Your task to perform on an android device: open sync settings in chrome Image 0: 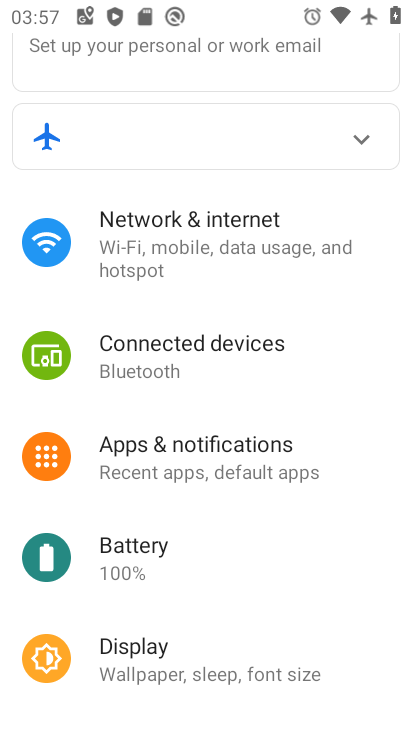
Step 0: press home button
Your task to perform on an android device: open sync settings in chrome Image 1: 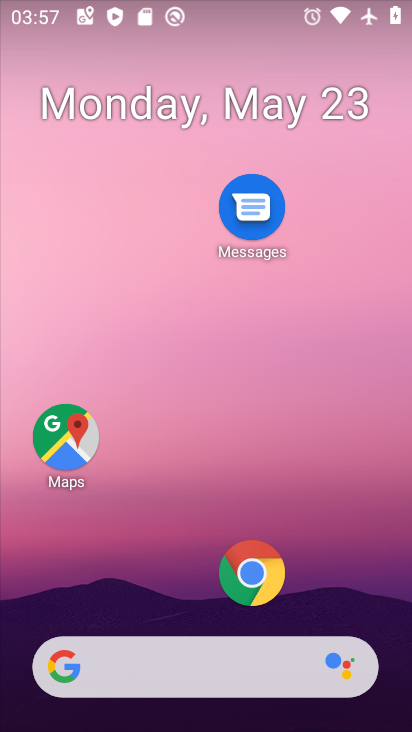
Step 1: drag from (315, 721) to (408, 27)
Your task to perform on an android device: open sync settings in chrome Image 2: 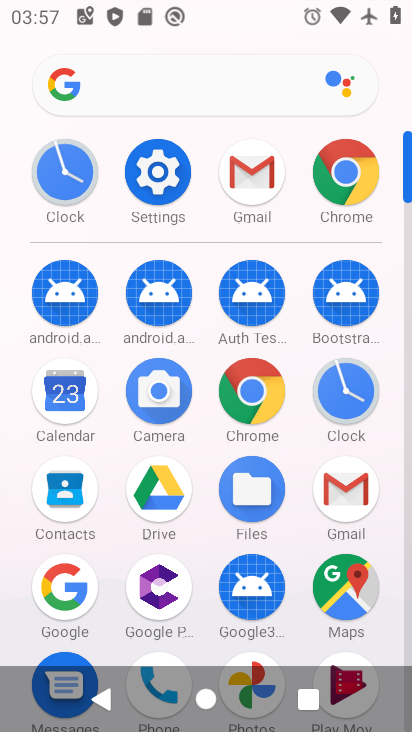
Step 2: click (273, 389)
Your task to perform on an android device: open sync settings in chrome Image 3: 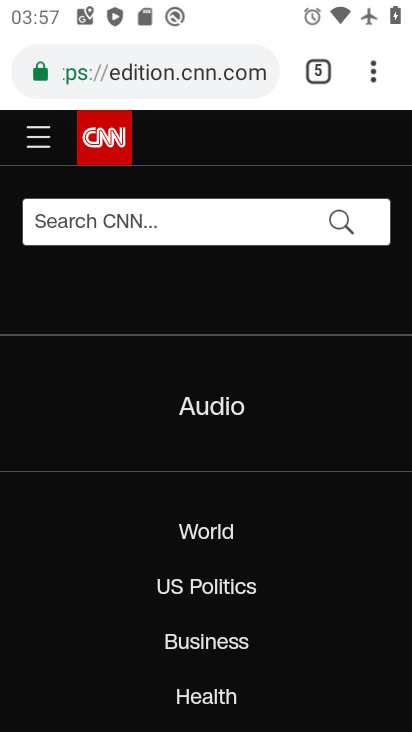
Step 3: click (372, 69)
Your task to perform on an android device: open sync settings in chrome Image 4: 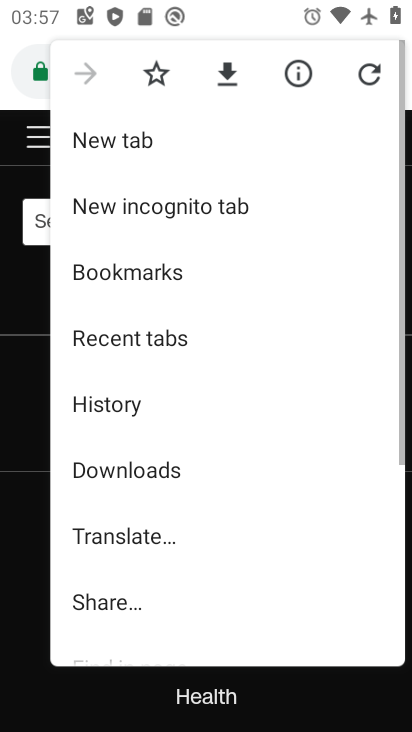
Step 4: drag from (283, 537) to (346, 102)
Your task to perform on an android device: open sync settings in chrome Image 5: 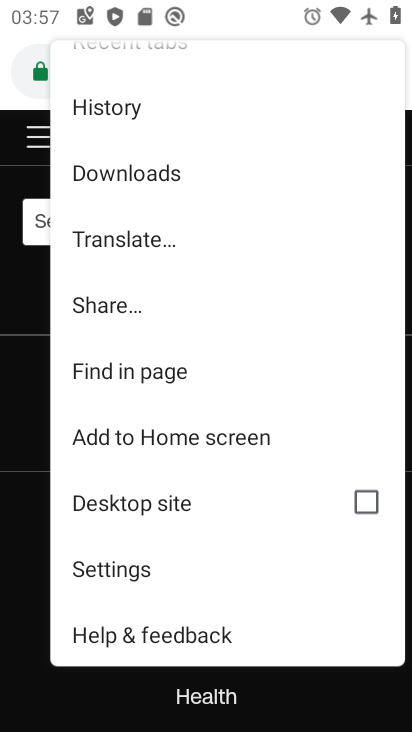
Step 5: click (164, 564)
Your task to perform on an android device: open sync settings in chrome Image 6: 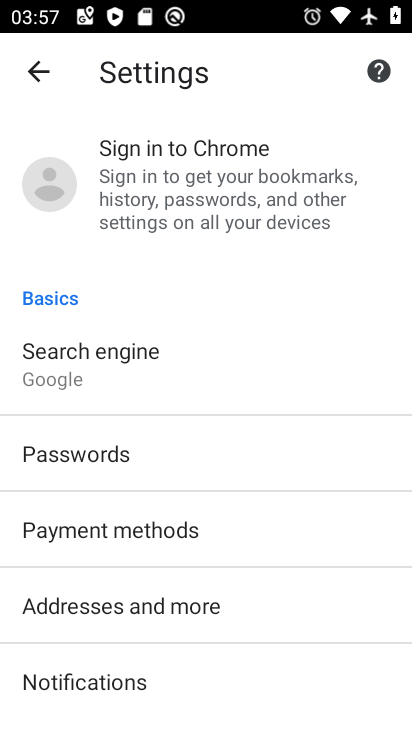
Step 6: drag from (214, 638) to (384, 7)
Your task to perform on an android device: open sync settings in chrome Image 7: 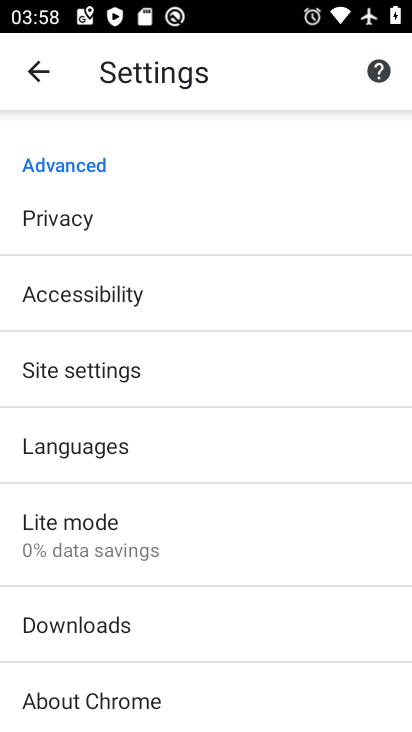
Step 7: click (136, 381)
Your task to perform on an android device: open sync settings in chrome Image 8: 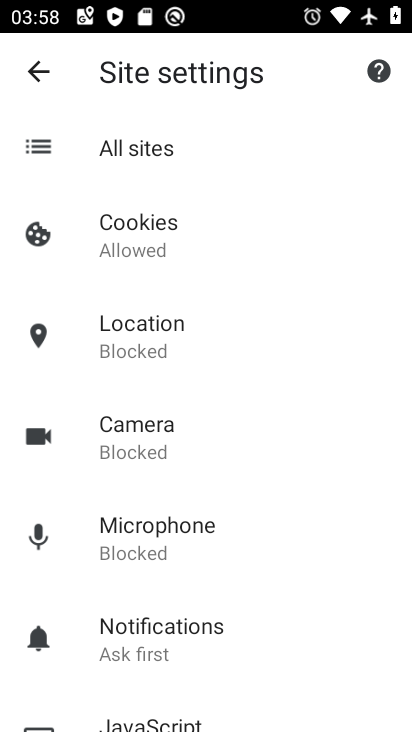
Step 8: drag from (188, 652) to (231, 170)
Your task to perform on an android device: open sync settings in chrome Image 9: 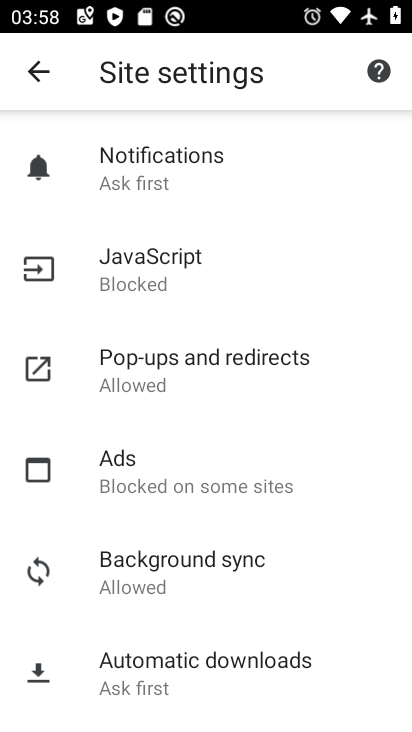
Step 9: click (225, 568)
Your task to perform on an android device: open sync settings in chrome Image 10: 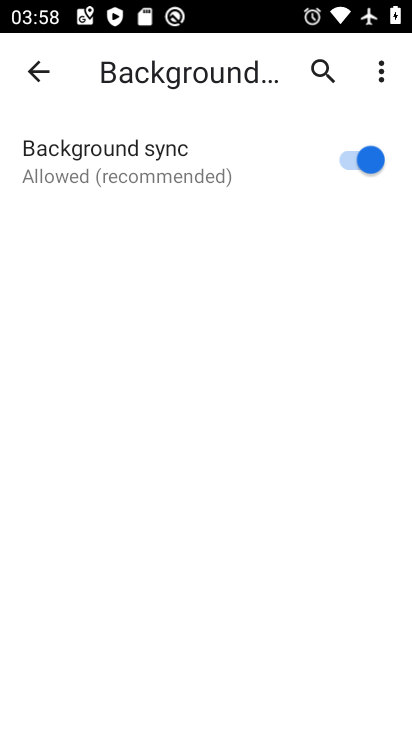
Step 10: task complete